Your task to perform on an android device: Open settings Image 0: 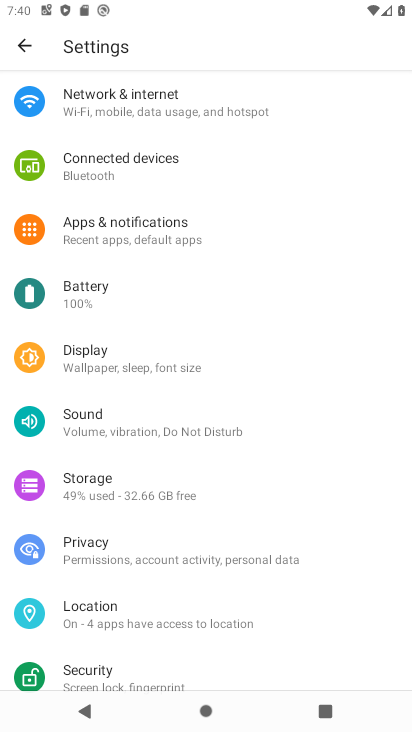
Step 0: drag from (156, 480) to (221, 200)
Your task to perform on an android device: Open settings Image 1: 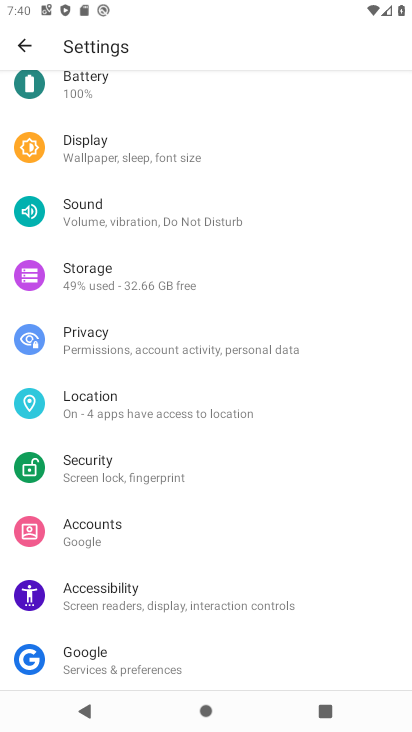
Step 1: task complete